Your task to perform on an android device: check data usage Image 0: 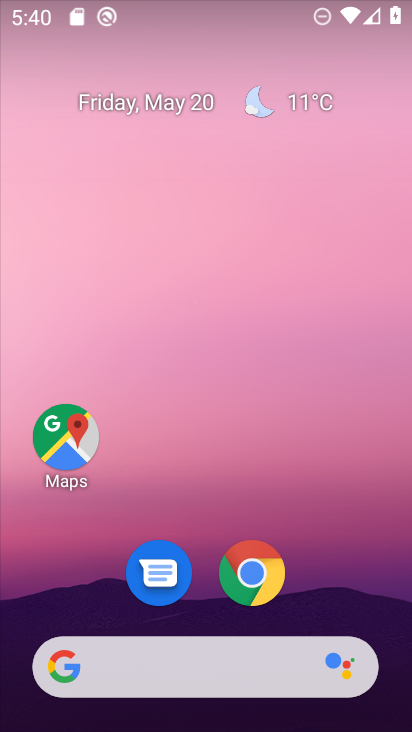
Step 0: drag from (320, 415) to (192, 2)
Your task to perform on an android device: check data usage Image 1: 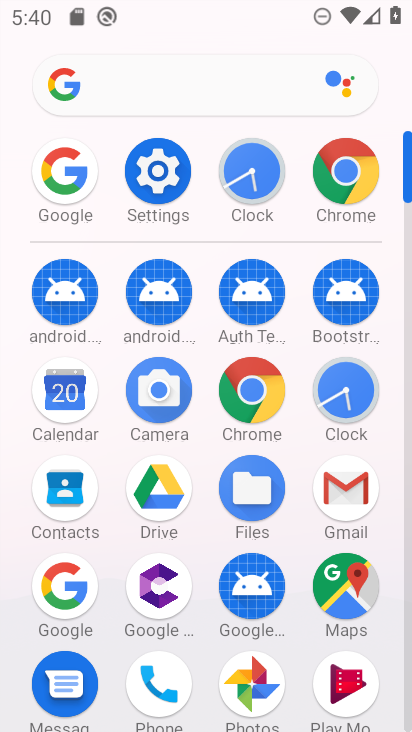
Step 1: click (164, 173)
Your task to perform on an android device: check data usage Image 2: 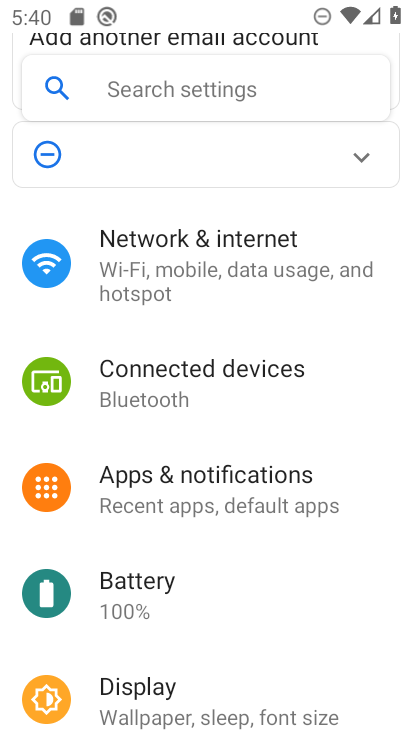
Step 2: click (231, 247)
Your task to perform on an android device: check data usage Image 3: 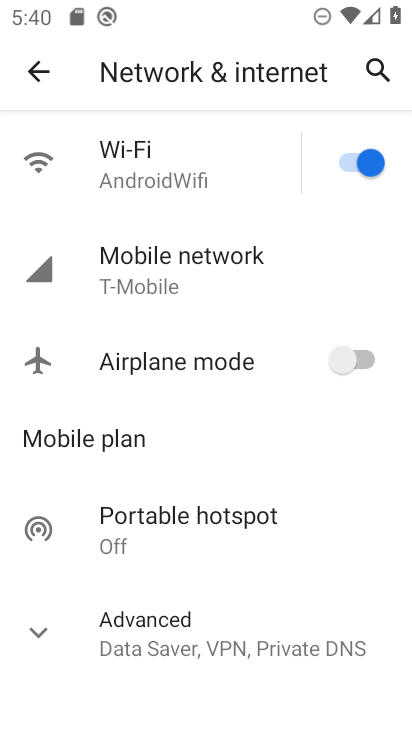
Step 3: click (221, 282)
Your task to perform on an android device: check data usage Image 4: 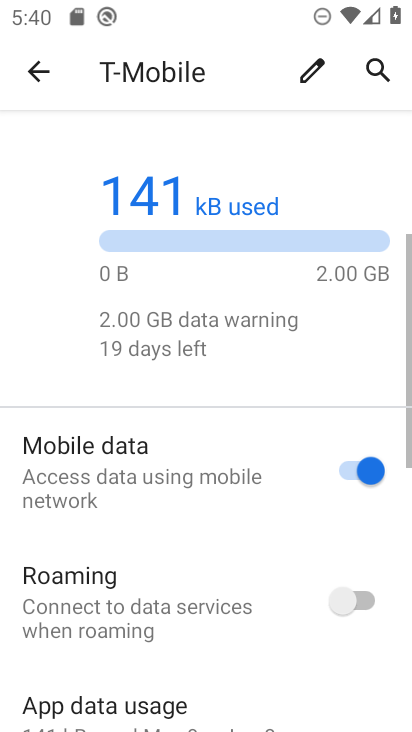
Step 4: task complete